Your task to perform on an android device: turn on location history Image 0: 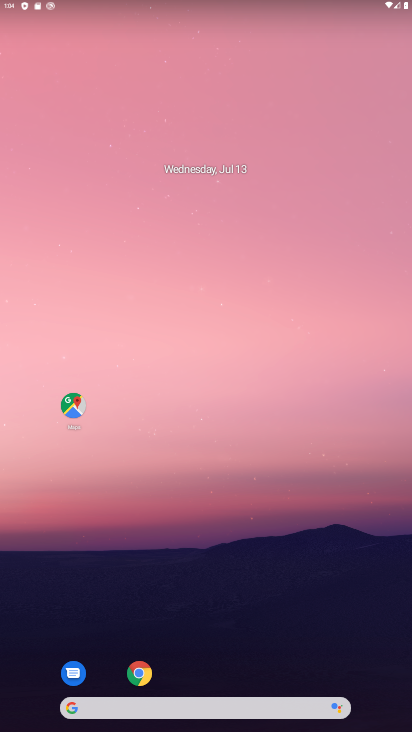
Step 0: drag from (209, 679) to (153, 182)
Your task to perform on an android device: turn on location history Image 1: 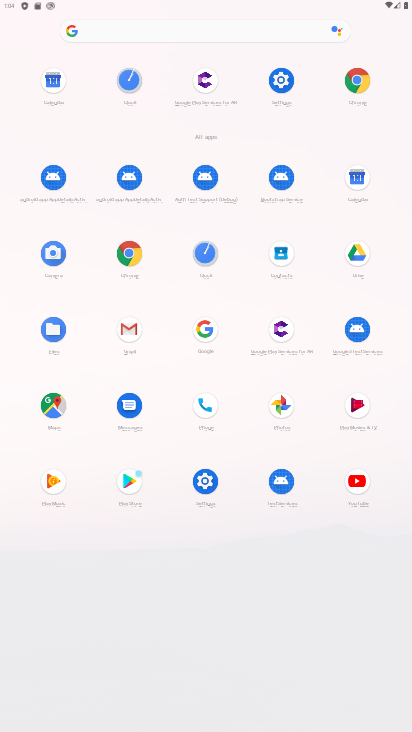
Step 1: click (212, 480)
Your task to perform on an android device: turn on location history Image 2: 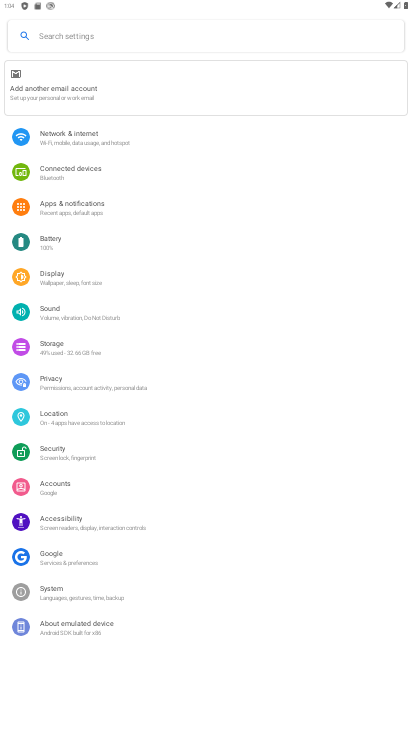
Step 2: click (49, 418)
Your task to perform on an android device: turn on location history Image 3: 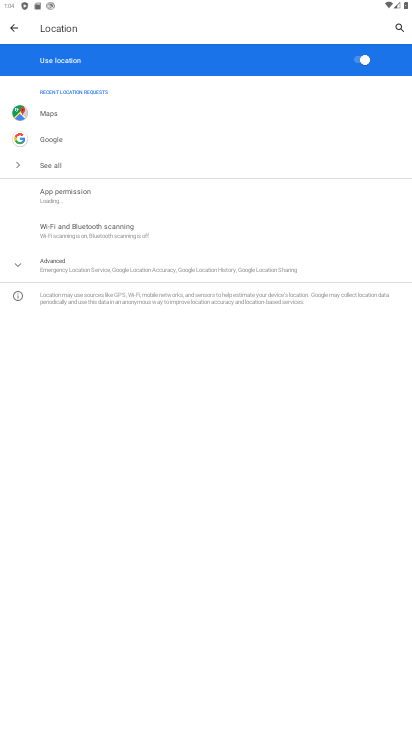
Step 3: click (81, 268)
Your task to perform on an android device: turn on location history Image 4: 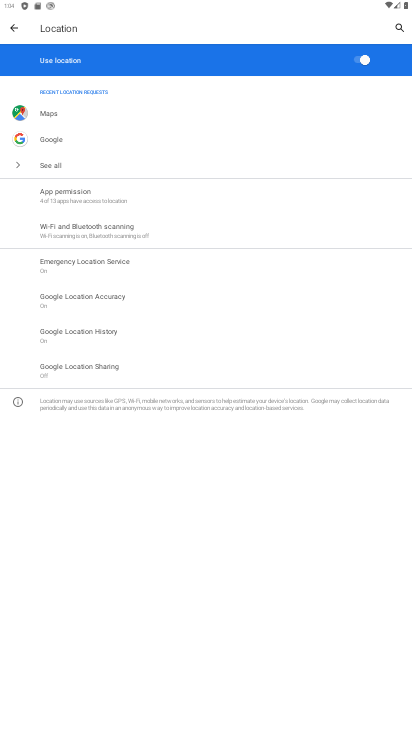
Step 4: click (106, 325)
Your task to perform on an android device: turn on location history Image 5: 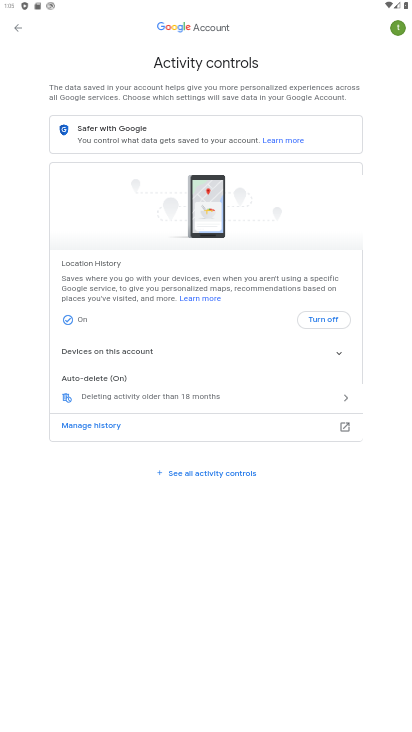
Step 5: task complete